Your task to perform on an android device: turn smart compose on in the gmail app Image 0: 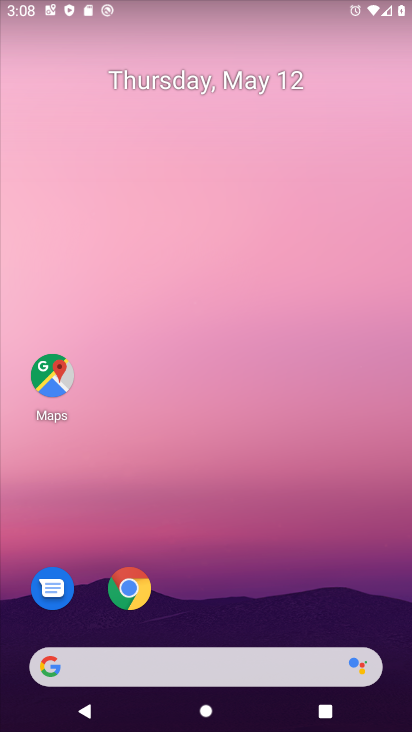
Step 0: drag from (243, 566) to (146, 40)
Your task to perform on an android device: turn smart compose on in the gmail app Image 1: 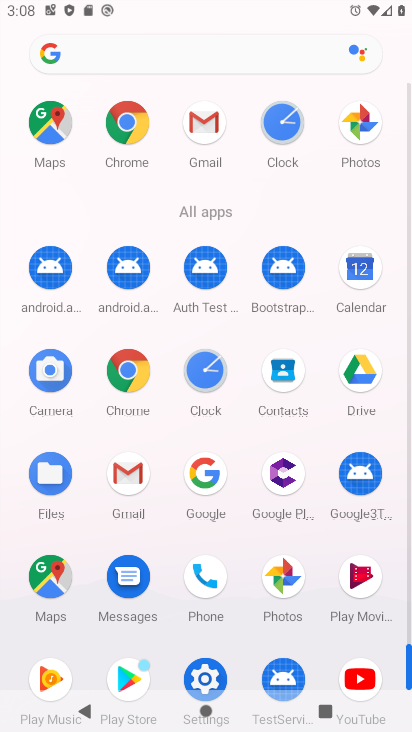
Step 1: drag from (5, 561) to (9, 259)
Your task to perform on an android device: turn smart compose on in the gmail app Image 2: 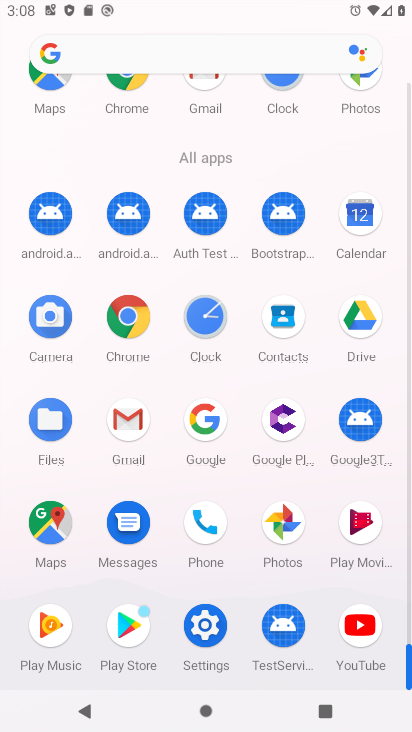
Step 2: drag from (10, 521) to (2, 235)
Your task to perform on an android device: turn smart compose on in the gmail app Image 3: 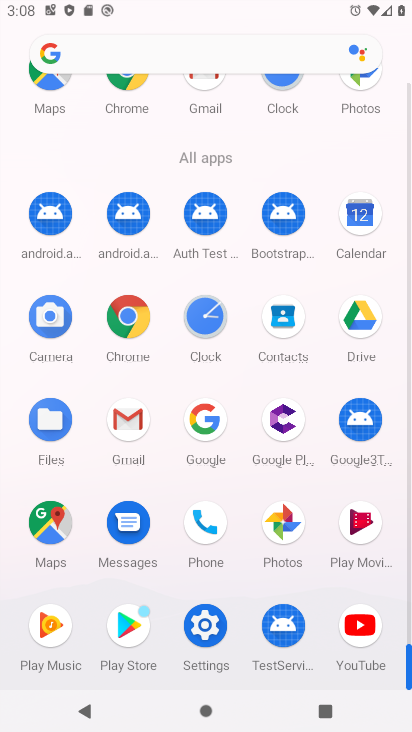
Step 3: click (126, 413)
Your task to perform on an android device: turn smart compose on in the gmail app Image 4: 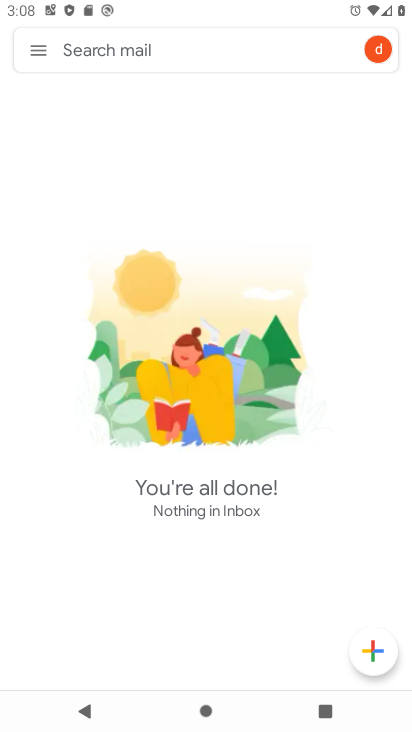
Step 4: click (36, 39)
Your task to perform on an android device: turn smart compose on in the gmail app Image 5: 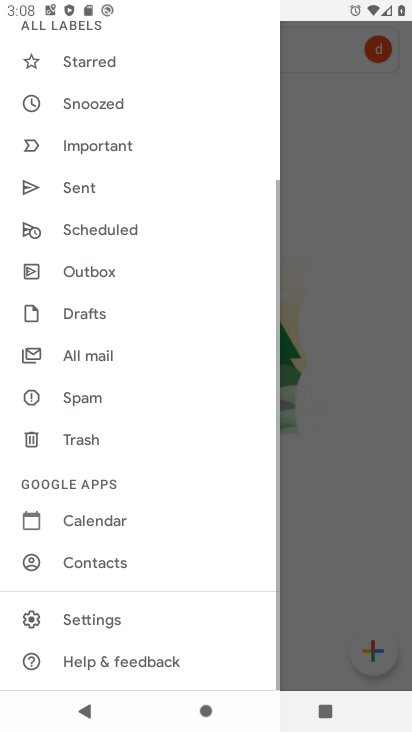
Step 5: drag from (170, 507) to (183, 111)
Your task to perform on an android device: turn smart compose on in the gmail app Image 6: 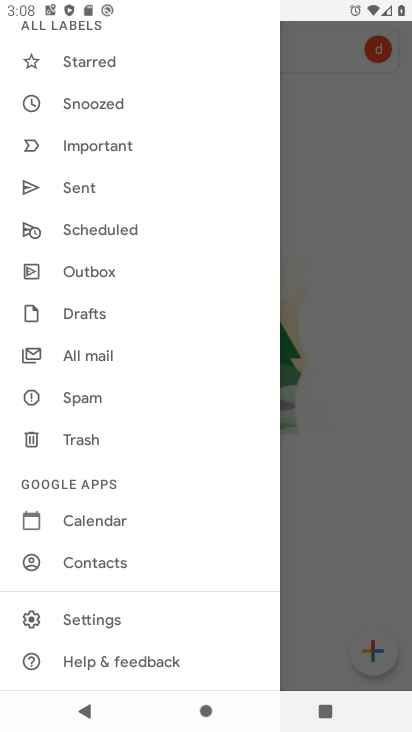
Step 6: click (91, 609)
Your task to perform on an android device: turn smart compose on in the gmail app Image 7: 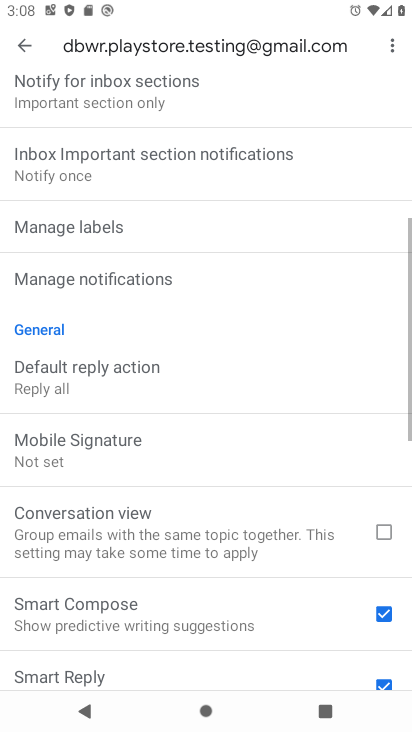
Step 7: task complete